Your task to perform on an android device: Search for sushi restaurants on Maps Image 0: 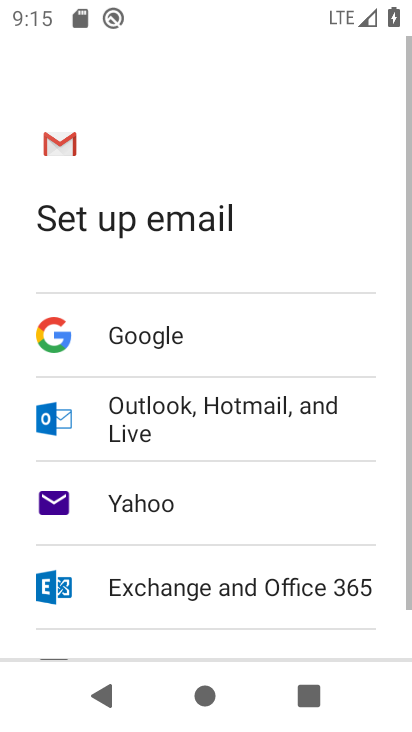
Step 0: press home button
Your task to perform on an android device: Search for sushi restaurants on Maps Image 1: 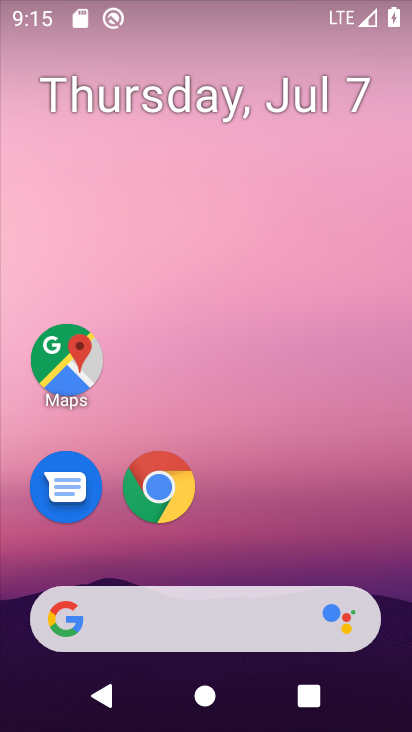
Step 1: drag from (335, 545) to (330, 122)
Your task to perform on an android device: Search for sushi restaurants on Maps Image 2: 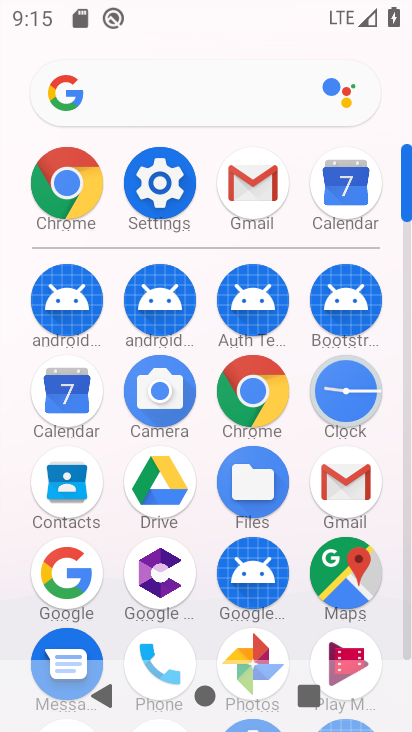
Step 2: click (354, 570)
Your task to perform on an android device: Search for sushi restaurants on Maps Image 3: 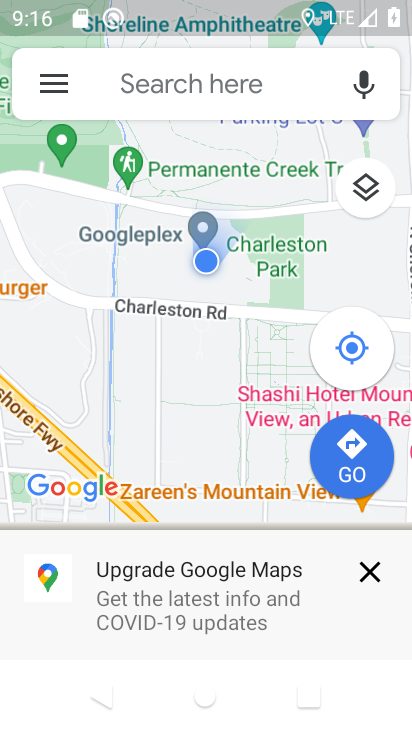
Step 3: click (226, 106)
Your task to perform on an android device: Search for sushi restaurants on Maps Image 4: 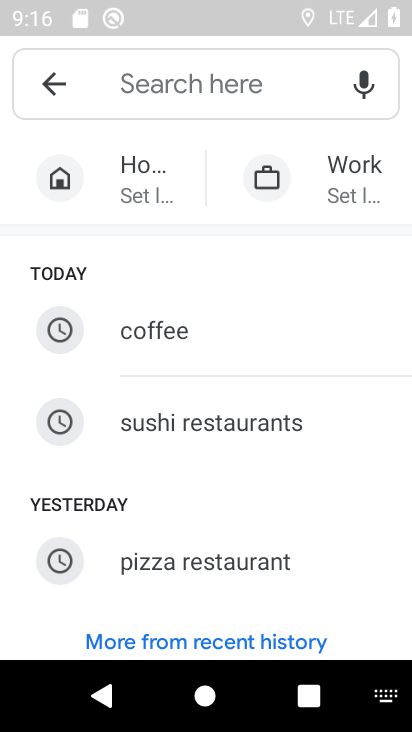
Step 4: type "sushi restaurants"
Your task to perform on an android device: Search for sushi restaurants on Maps Image 5: 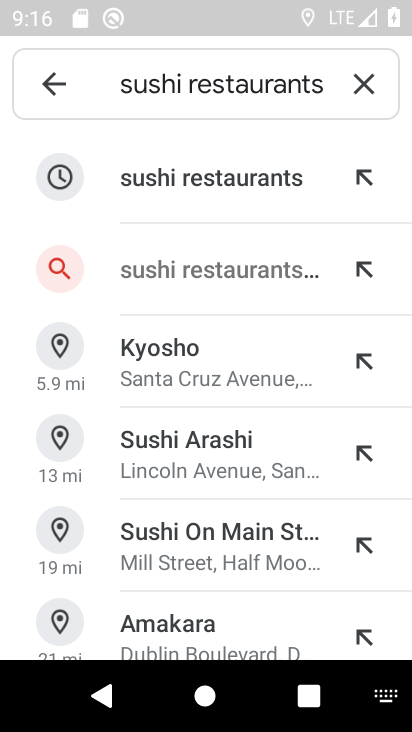
Step 5: click (274, 194)
Your task to perform on an android device: Search for sushi restaurants on Maps Image 6: 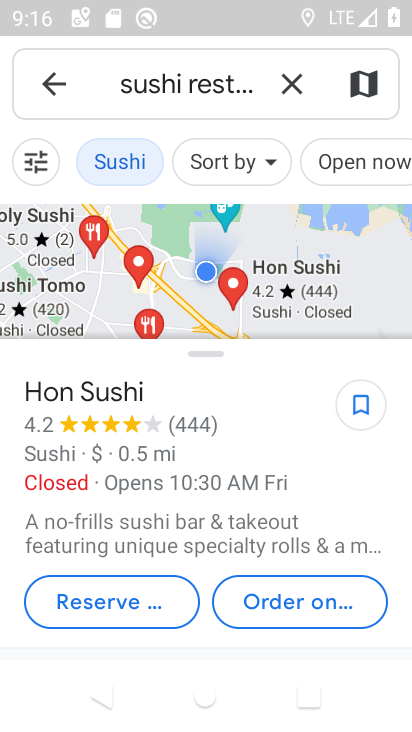
Step 6: task complete